Your task to perform on an android device: Open Wikipedia Image 0: 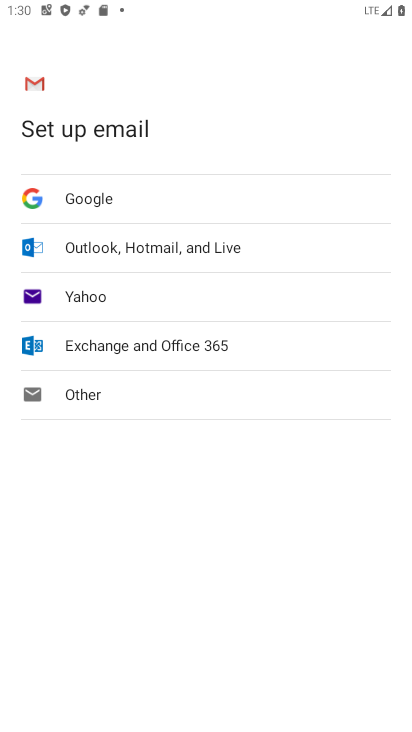
Step 0: press home button
Your task to perform on an android device: Open Wikipedia Image 1: 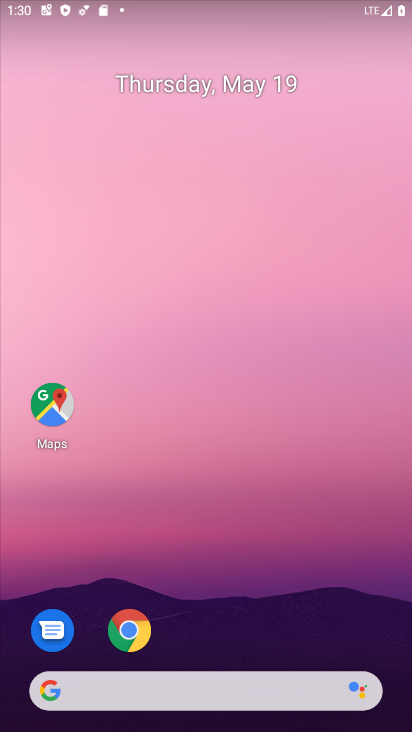
Step 1: click (129, 636)
Your task to perform on an android device: Open Wikipedia Image 2: 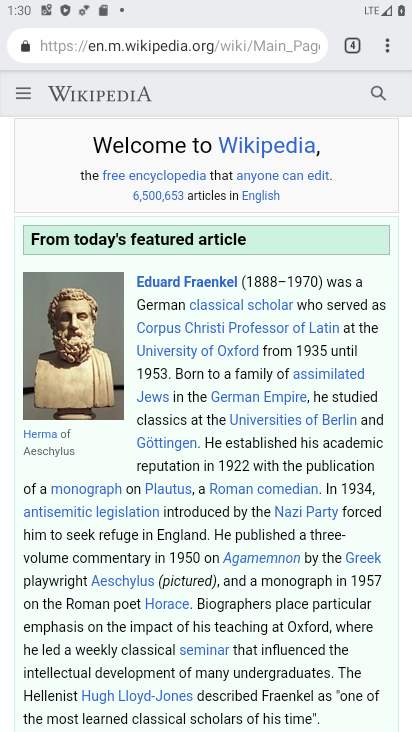
Step 2: task complete